Your task to perform on an android device: clear history in the chrome app Image 0: 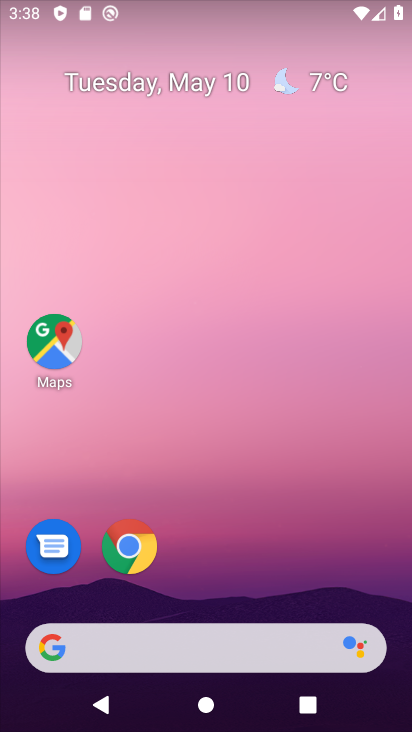
Step 0: click (118, 543)
Your task to perform on an android device: clear history in the chrome app Image 1: 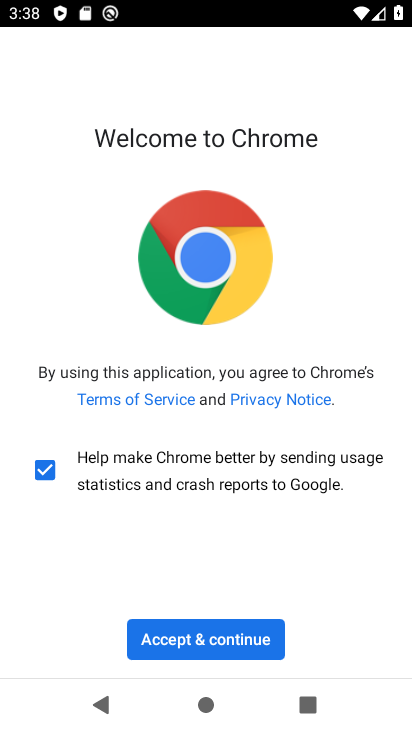
Step 1: click (219, 650)
Your task to perform on an android device: clear history in the chrome app Image 2: 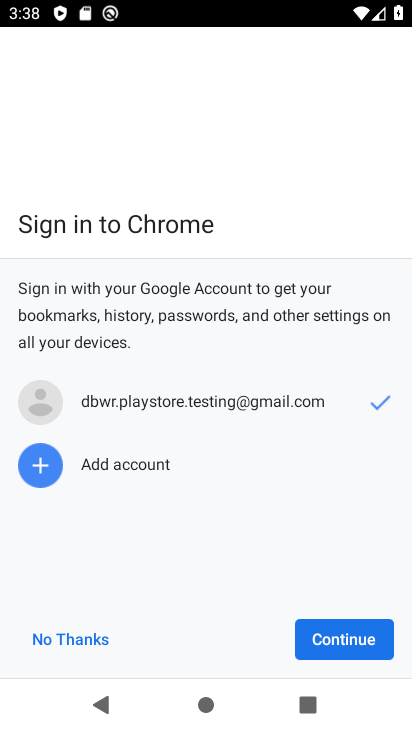
Step 2: click (333, 632)
Your task to perform on an android device: clear history in the chrome app Image 3: 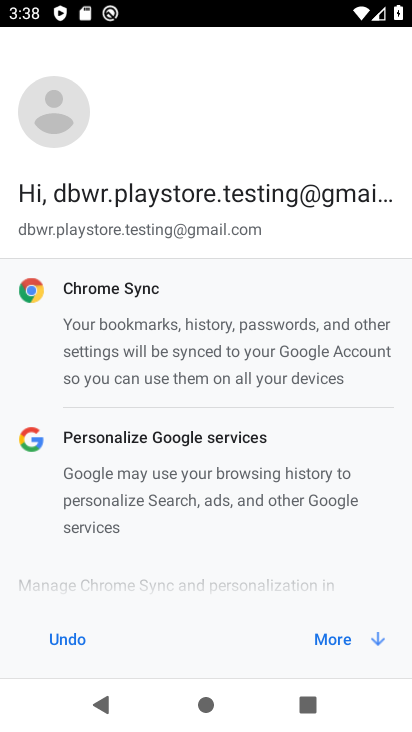
Step 3: click (317, 633)
Your task to perform on an android device: clear history in the chrome app Image 4: 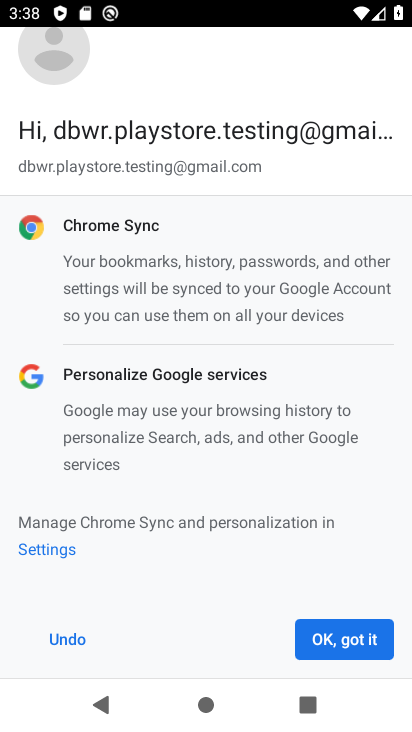
Step 4: click (336, 629)
Your task to perform on an android device: clear history in the chrome app Image 5: 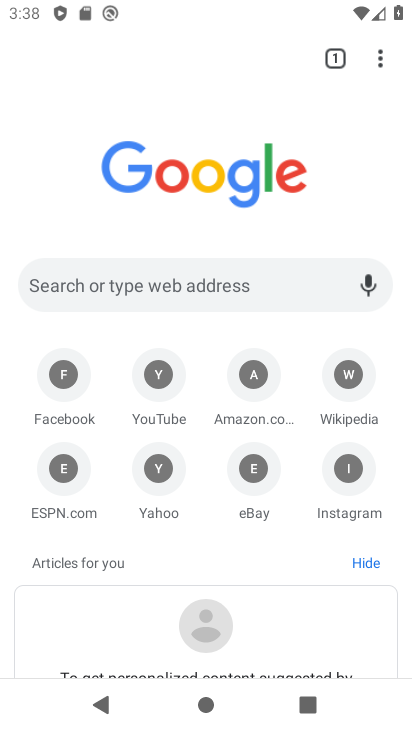
Step 5: task complete